Your task to perform on an android device: What's on my calendar today? Image 0: 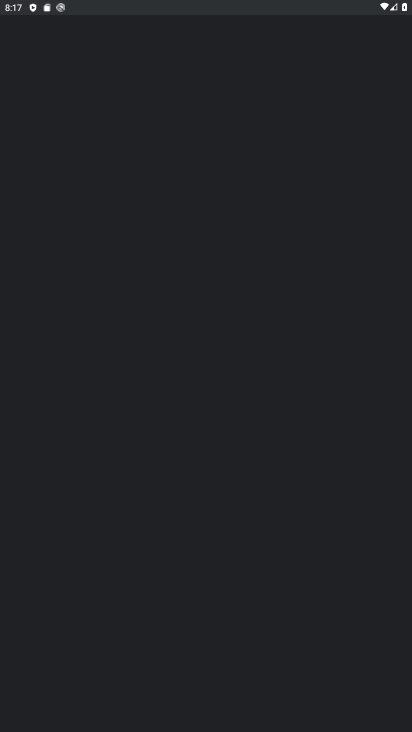
Step 0: drag from (267, 656) to (297, 175)
Your task to perform on an android device: What's on my calendar today? Image 1: 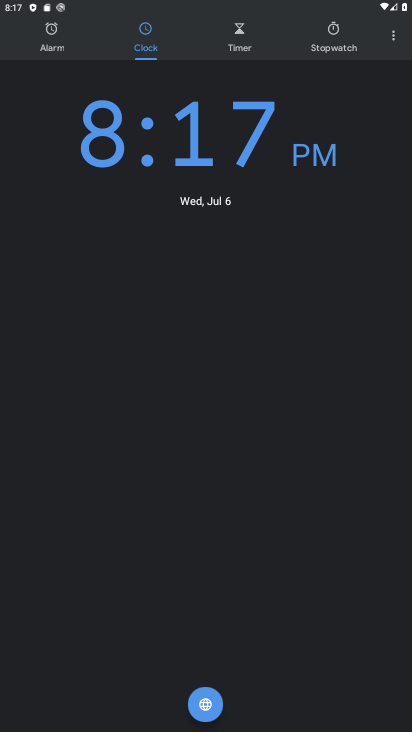
Step 1: press home button
Your task to perform on an android device: What's on my calendar today? Image 2: 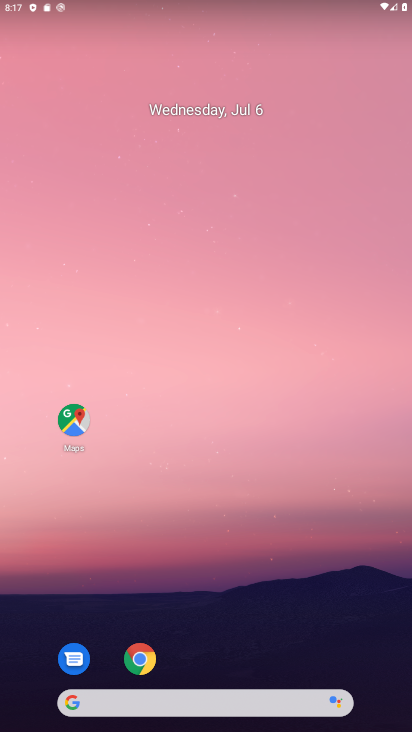
Step 2: drag from (258, 699) to (284, 77)
Your task to perform on an android device: What's on my calendar today? Image 3: 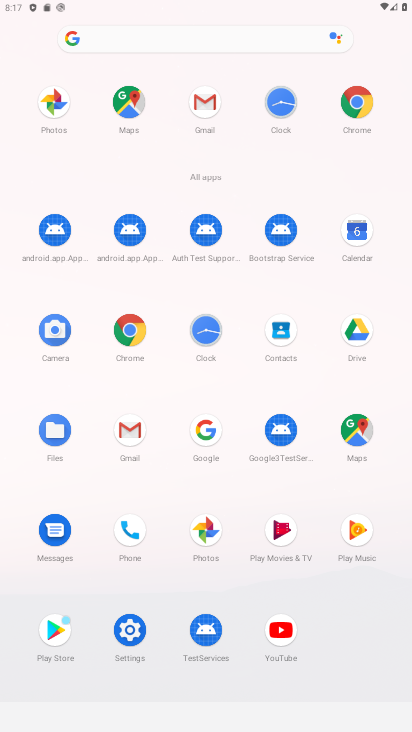
Step 3: click (361, 232)
Your task to perform on an android device: What's on my calendar today? Image 4: 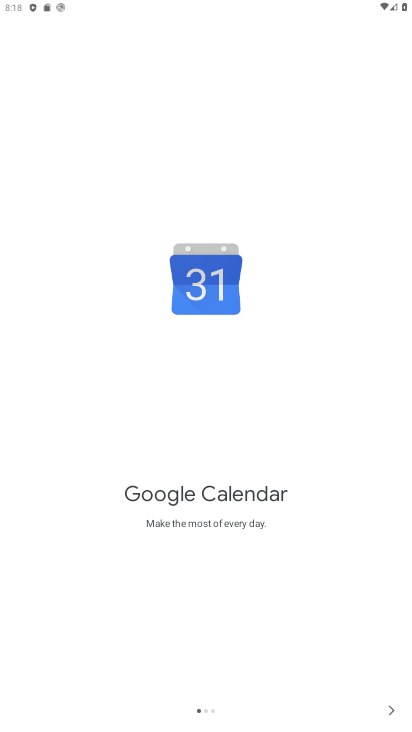
Step 4: click (392, 709)
Your task to perform on an android device: What's on my calendar today? Image 5: 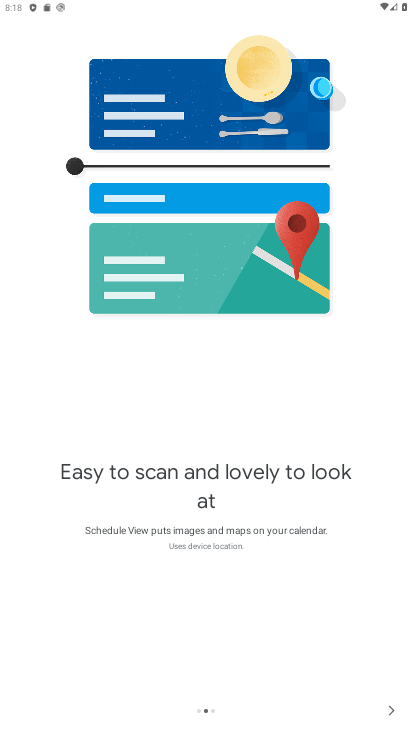
Step 5: click (392, 709)
Your task to perform on an android device: What's on my calendar today? Image 6: 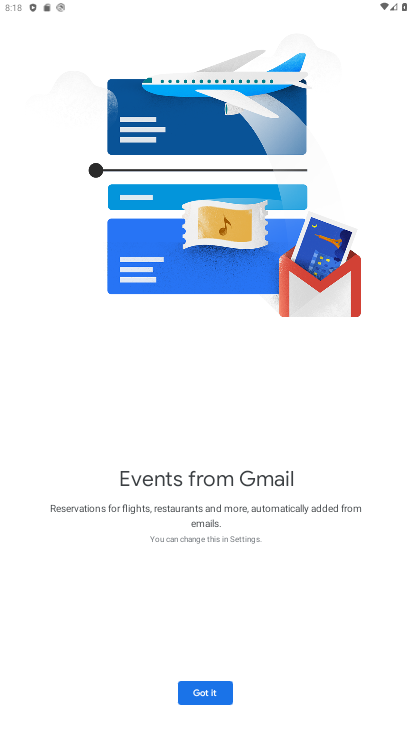
Step 6: click (221, 689)
Your task to perform on an android device: What's on my calendar today? Image 7: 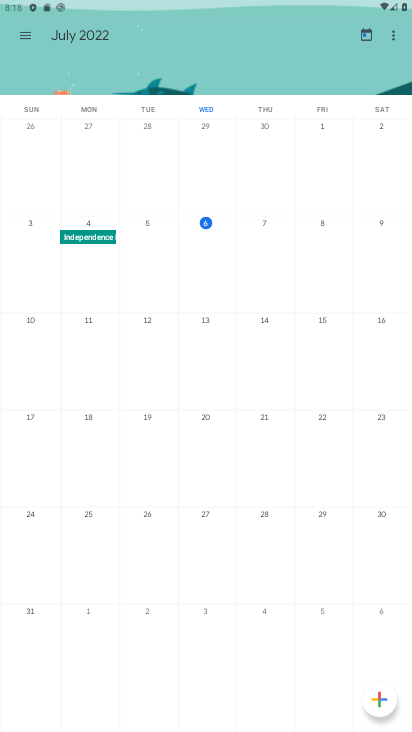
Step 7: click (265, 225)
Your task to perform on an android device: What's on my calendar today? Image 8: 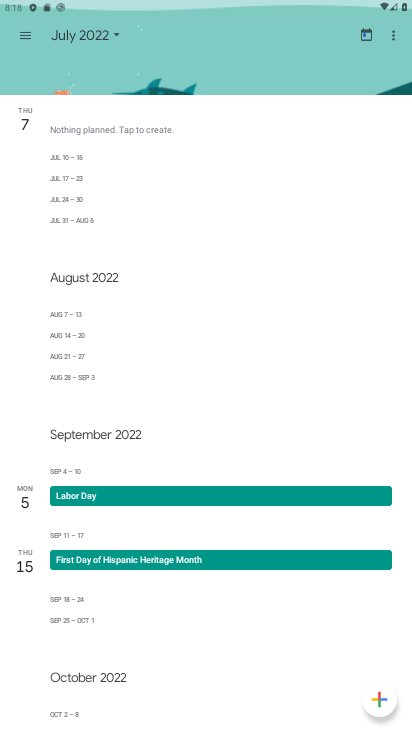
Step 8: task complete